Your task to perform on an android device: Open CNN.com Image 0: 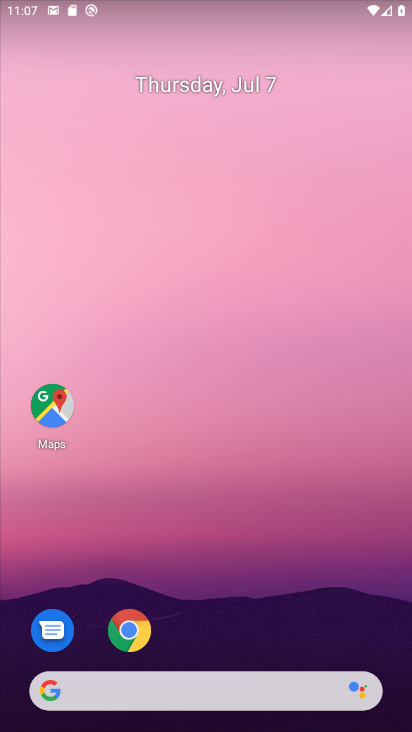
Step 0: click (124, 634)
Your task to perform on an android device: Open CNN.com Image 1: 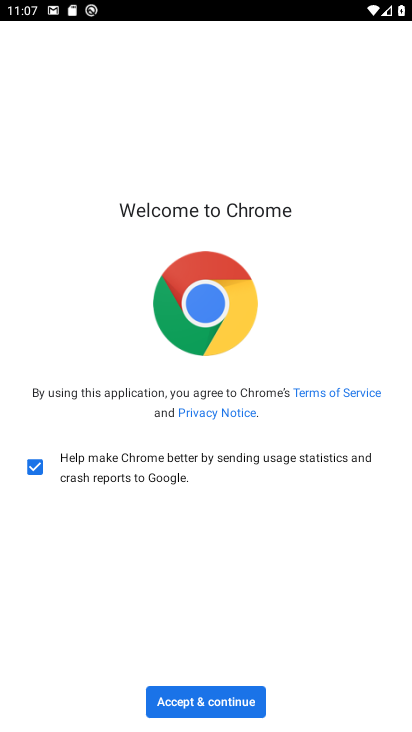
Step 1: click (188, 706)
Your task to perform on an android device: Open CNN.com Image 2: 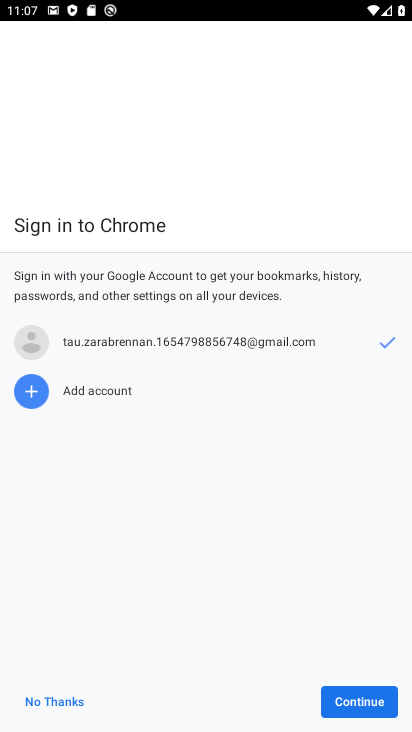
Step 2: click (358, 703)
Your task to perform on an android device: Open CNN.com Image 3: 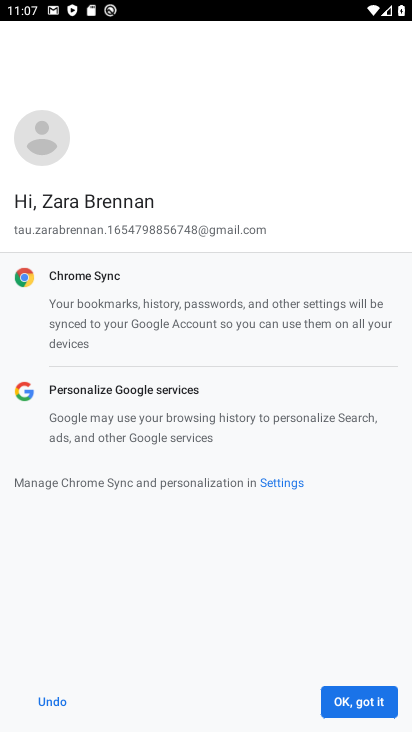
Step 3: click (346, 703)
Your task to perform on an android device: Open CNN.com Image 4: 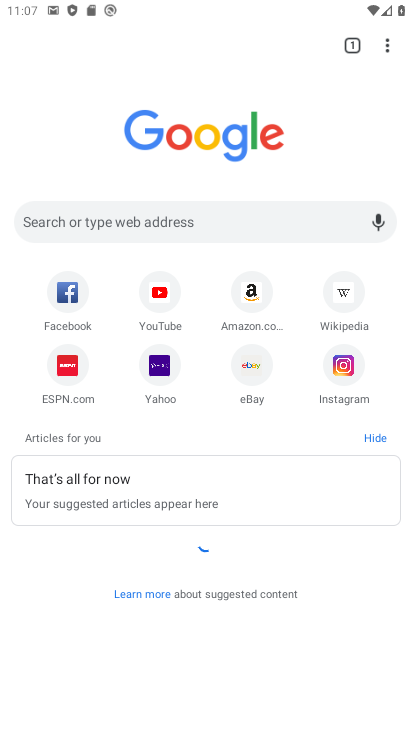
Step 4: click (115, 220)
Your task to perform on an android device: Open CNN.com Image 5: 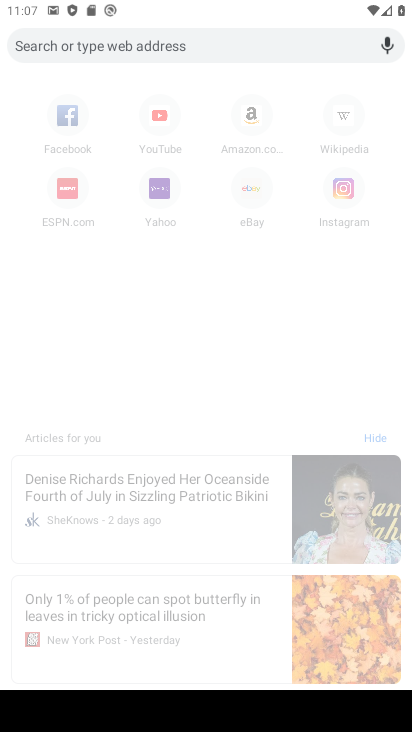
Step 5: type "CNN.com"
Your task to perform on an android device: Open CNN.com Image 6: 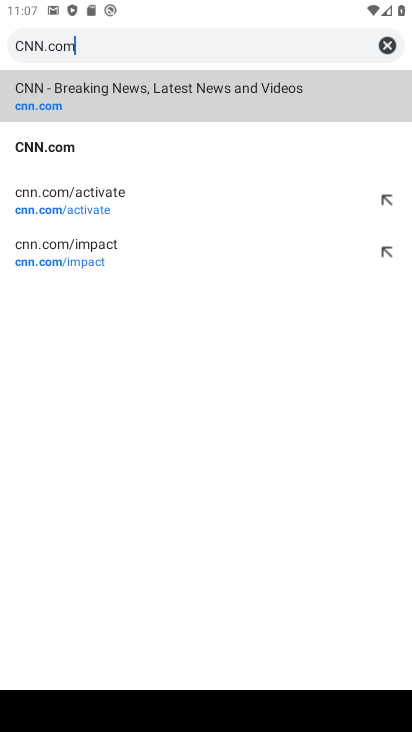
Step 6: click (46, 85)
Your task to perform on an android device: Open CNN.com Image 7: 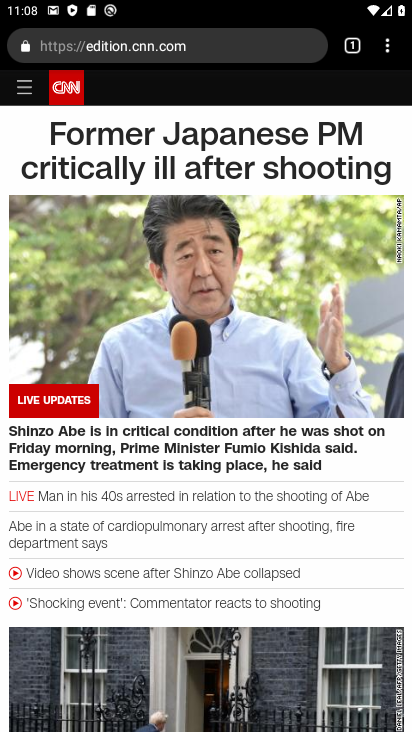
Step 7: task complete